Your task to perform on an android device: Open calendar and show me the second week of next month Image 0: 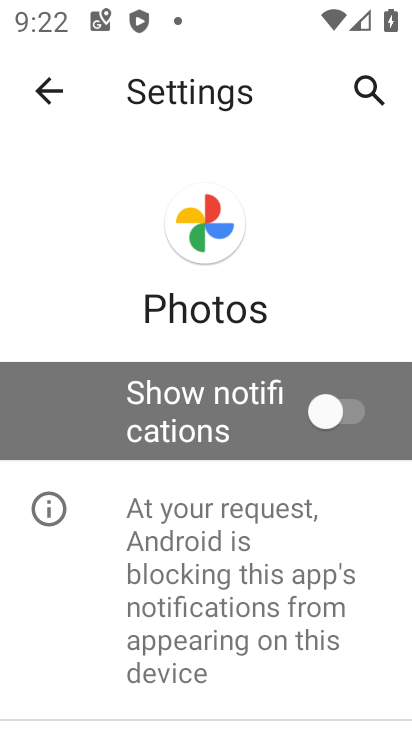
Step 0: press home button
Your task to perform on an android device: Open calendar and show me the second week of next month Image 1: 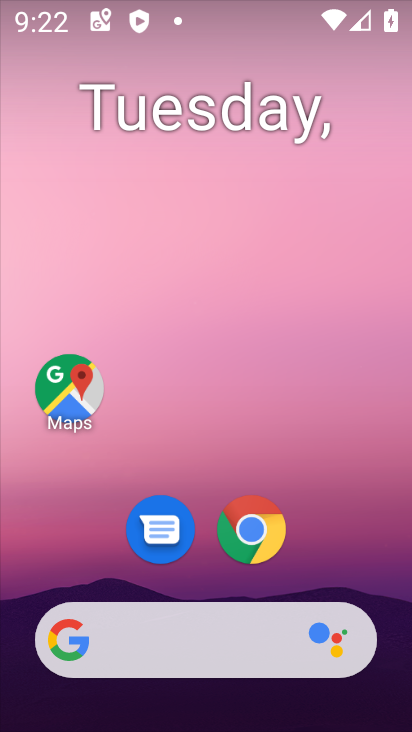
Step 1: drag from (280, 603) to (243, 270)
Your task to perform on an android device: Open calendar and show me the second week of next month Image 2: 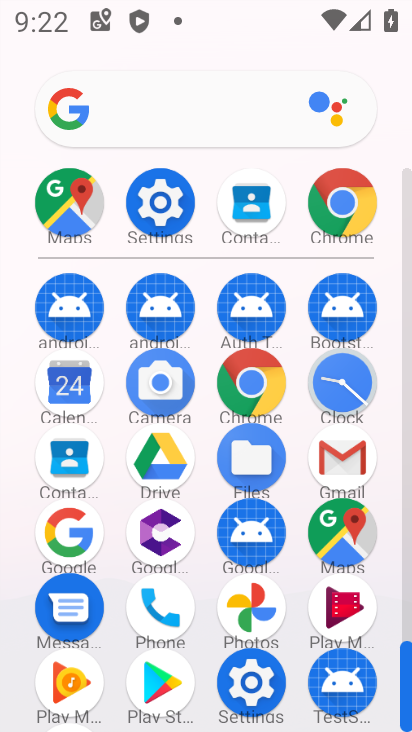
Step 2: click (79, 393)
Your task to perform on an android device: Open calendar and show me the second week of next month Image 3: 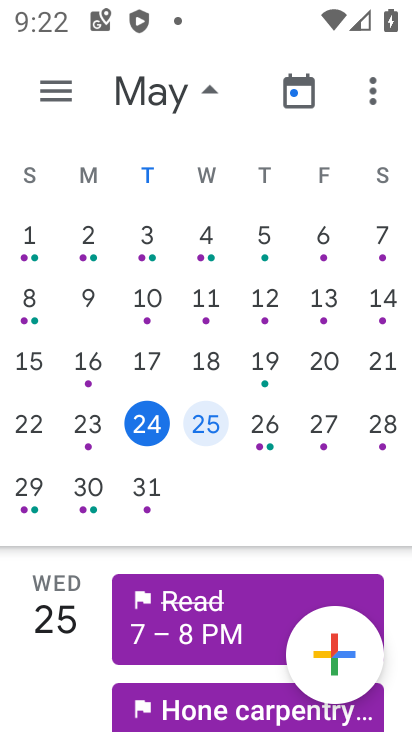
Step 3: drag from (347, 455) to (0, 485)
Your task to perform on an android device: Open calendar and show me the second week of next month Image 4: 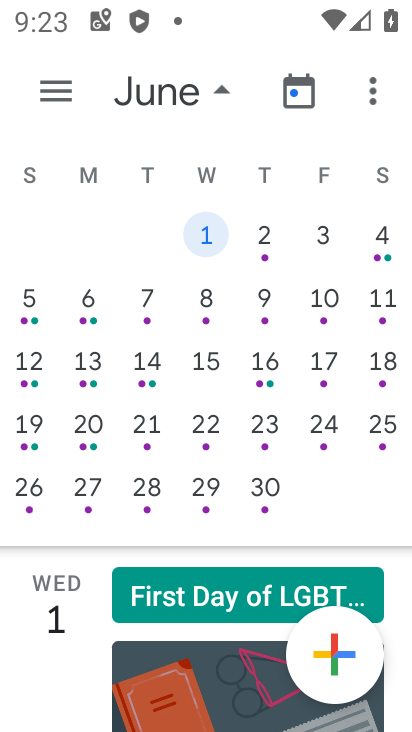
Step 4: click (30, 317)
Your task to perform on an android device: Open calendar and show me the second week of next month Image 5: 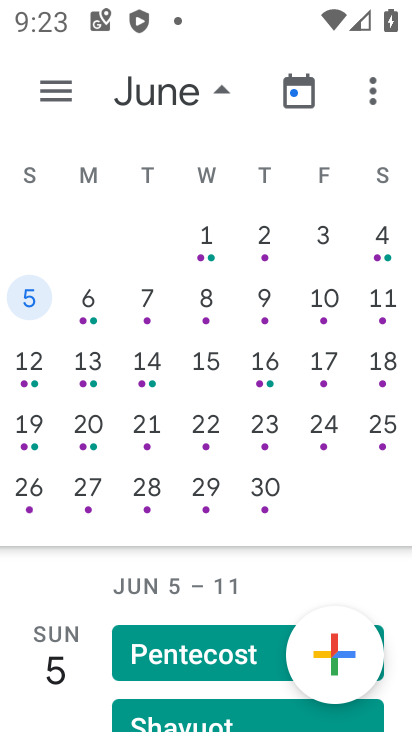
Step 5: task complete